Your task to perform on an android device: Search for macbook pro 13 inch on amazon.com, select the first entry, add it to the cart, then select checkout. Image 0: 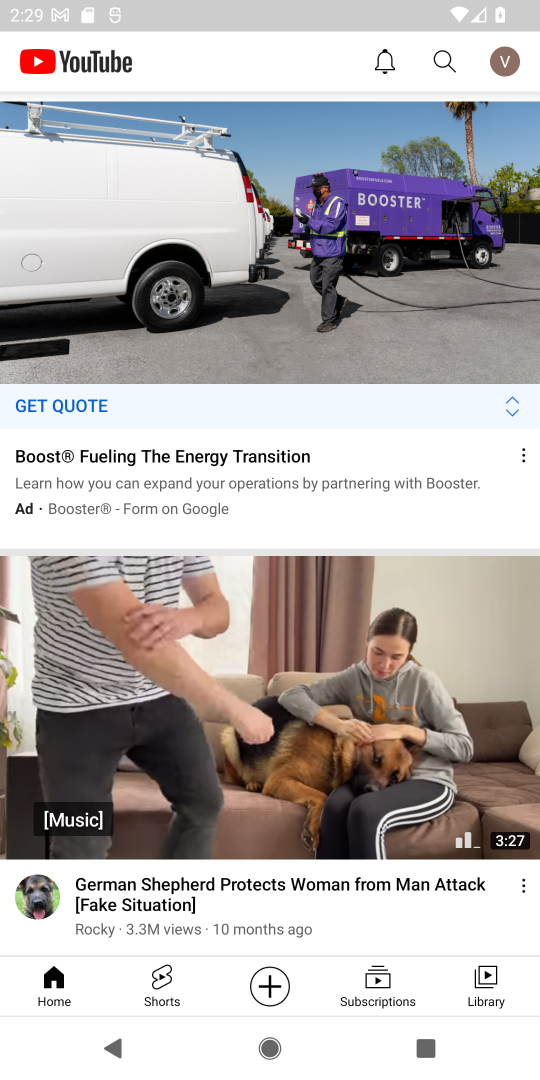
Step 0: press home button
Your task to perform on an android device: Search for macbook pro 13 inch on amazon.com, select the first entry, add it to the cart, then select checkout. Image 1: 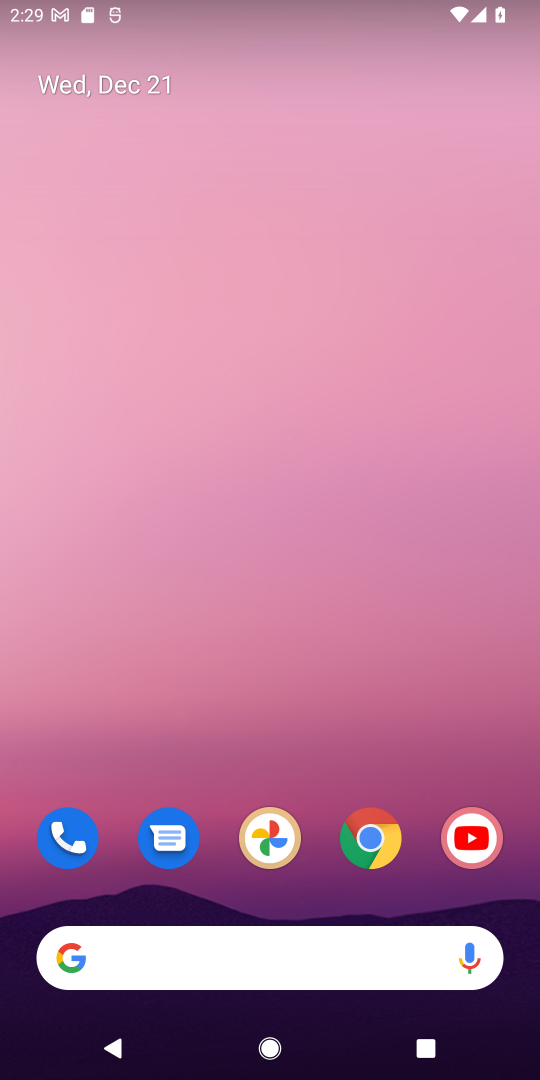
Step 1: click (315, 965)
Your task to perform on an android device: Search for macbook pro 13 inch on amazon.com, select the first entry, add it to the cart, then select checkout. Image 2: 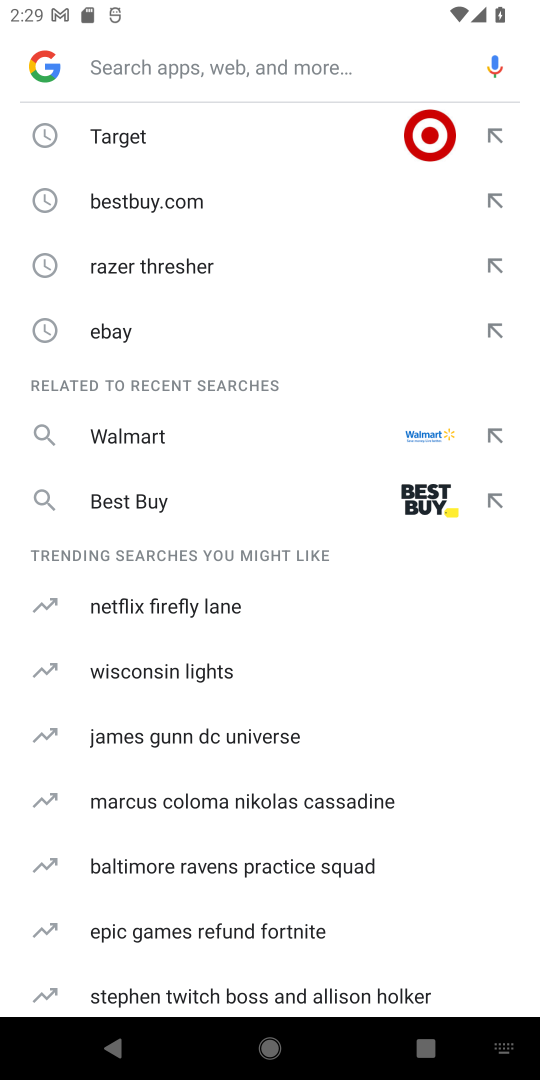
Step 2: type "amazon"
Your task to perform on an android device: Search for macbook pro 13 inch on amazon.com, select the first entry, add it to the cart, then select checkout. Image 3: 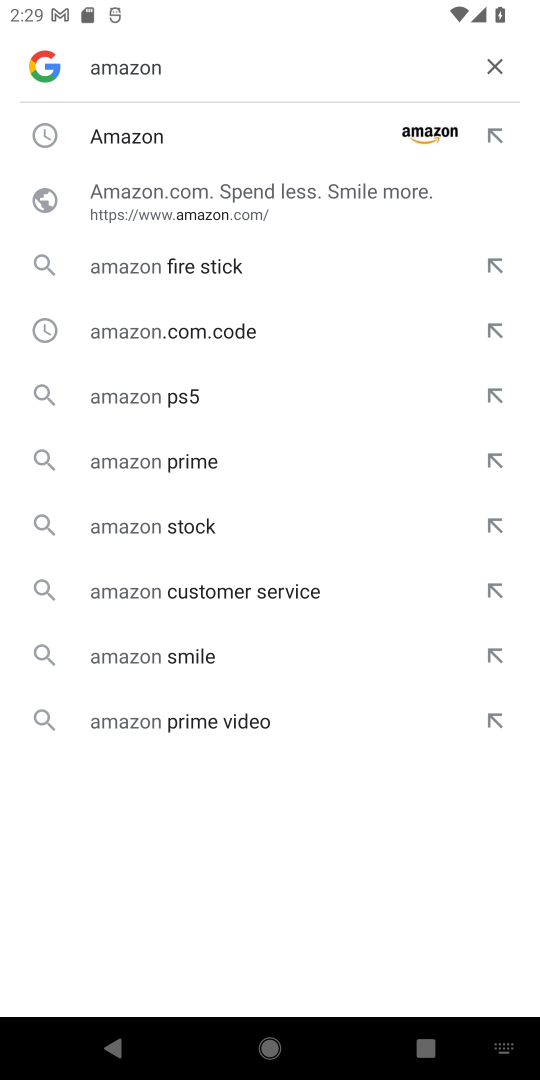
Step 3: click (194, 139)
Your task to perform on an android device: Search for macbook pro 13 inch on amazon.com, select the first entry, add it to the cart, then select checkout. Image 4: 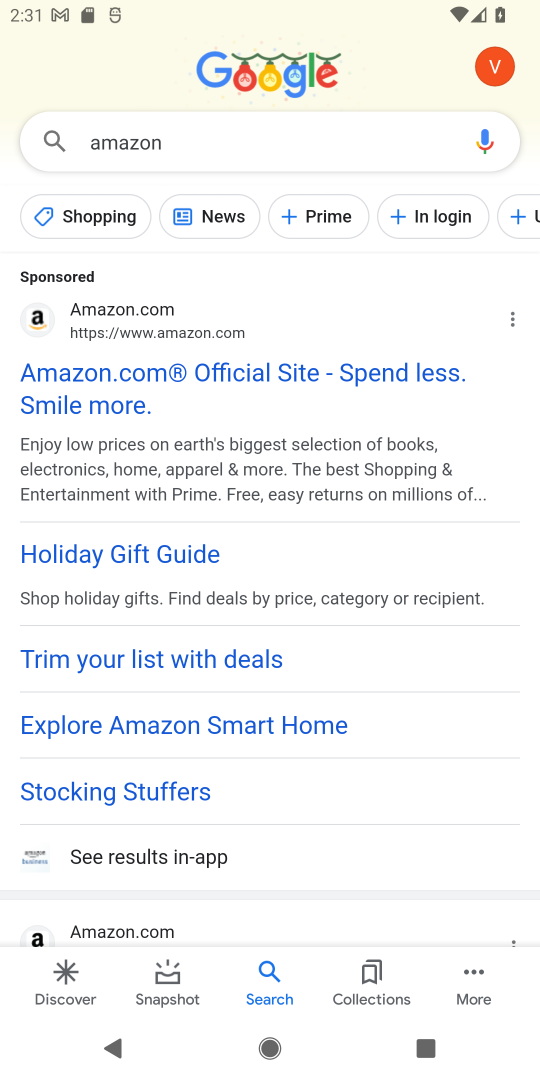
Step 4: click (74, 356)
Your task to perform on an android device: Search for macbook pro 13 inch on amazon.com, select the first entry, add it to the cart, then select checkout. Image 5: 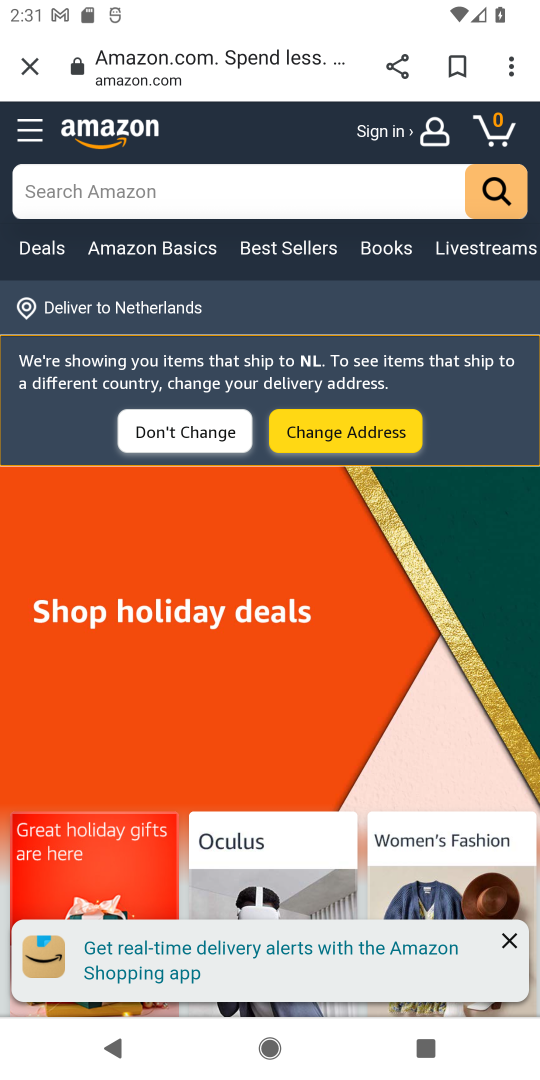
Step 5: click (89, 181)
Your task to perform on an android device: Search for macbook pro 13 inch on amazon.com, select the first entry, add it to the cart, then select checkout. Image 6: 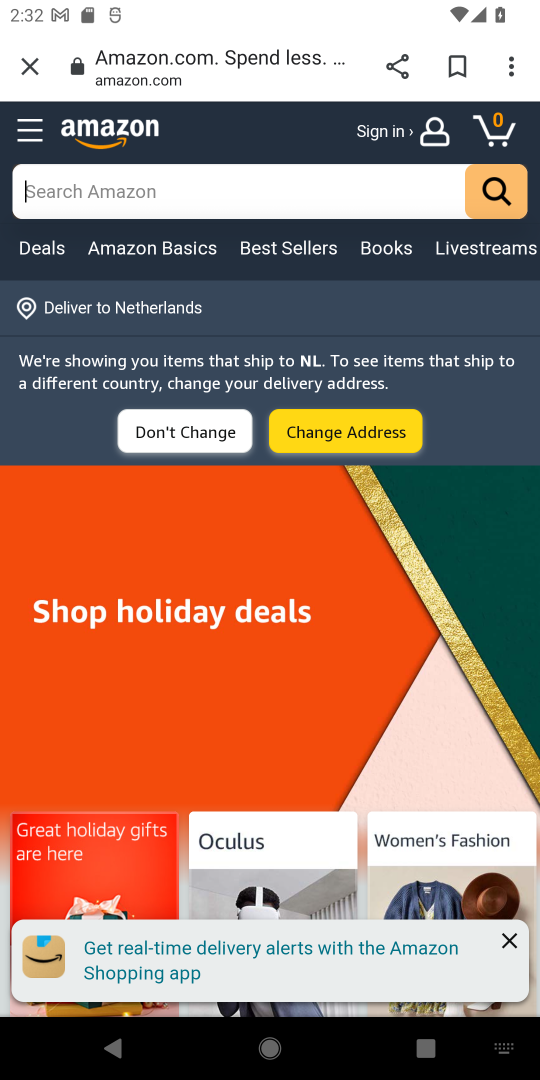
Step 6: type "macbook"
Your task to perform on an android device: Search for macbook pro 13 inch on amazon.com, select the first entry, add it to the cart, then select checkout. Image 7: 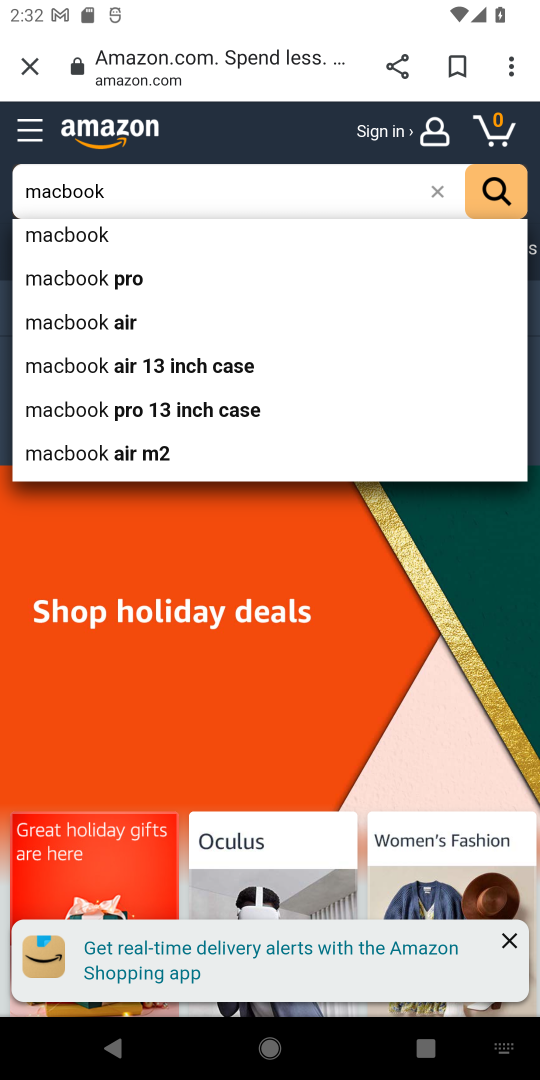
Step 7: type " 13"
Your task to perform on an android device: Search for macbook pro 13 inch on amazon.com, select the first entry, add it to the cart, then select checkout. Image 8: 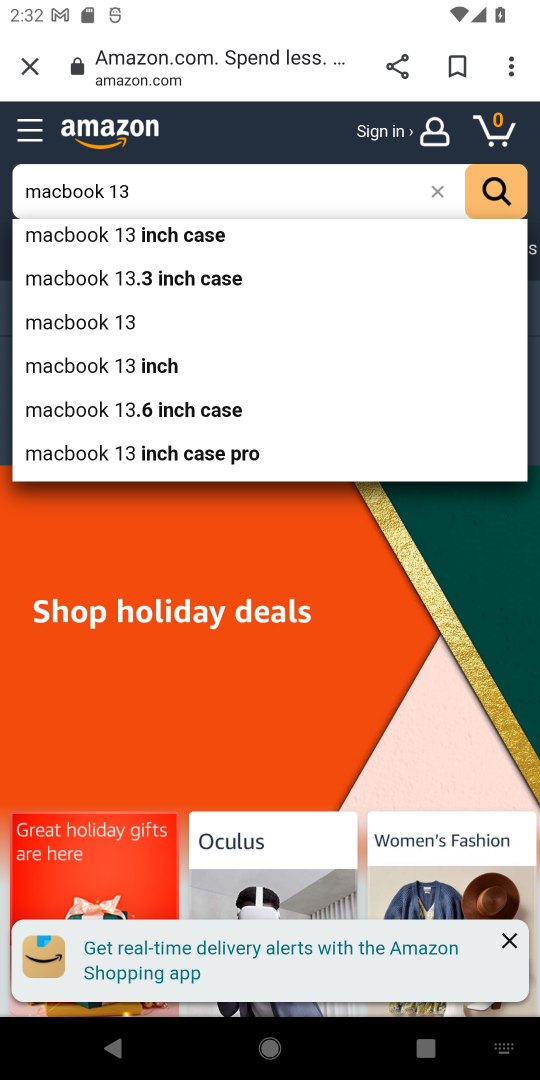
Step 8: click (488, 202)
Your task to perform on an android device: Search for macbook pro 13 inch on amazon.com, select the first entry, add it to the cart, then select checkout. Image 9: 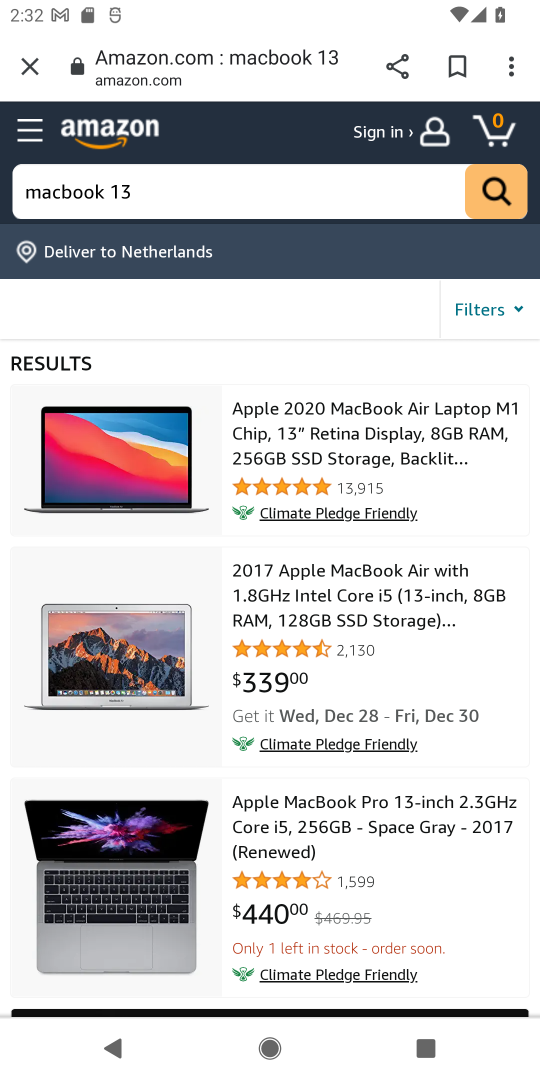
Step 9: click (312, 442)
Your task to perform on an android device: Search for macbook pro 13 inch on amazon.com, select the first entry, add it to the cart, then select checkout. Image 10: 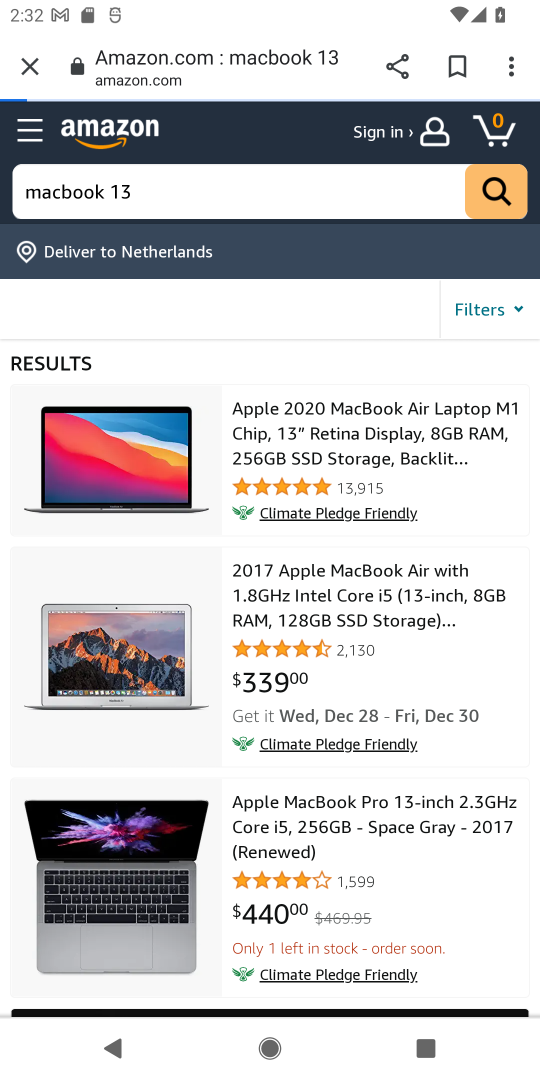
Step 10: task complete